Your task to perform on an android device: Turn off the flashlight Image 0: 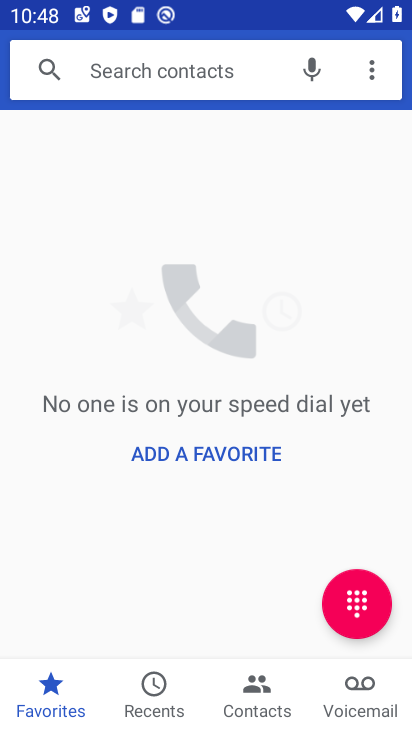
Step 0: press back button
Your task to perform on an android device: Turn off the flashlight Image 1: 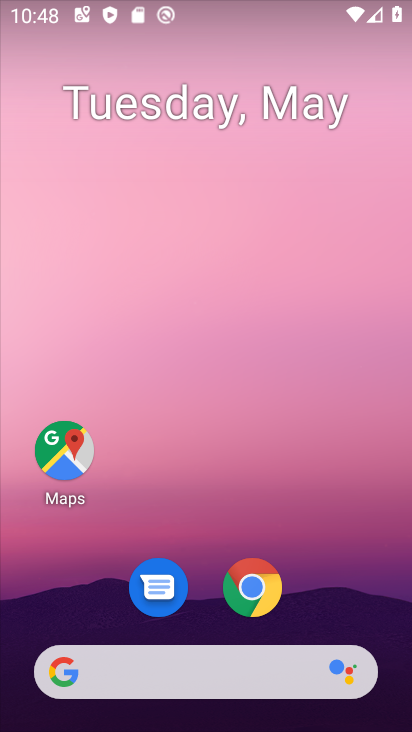
Step 1: drag from (338, 589) to (295, 3)
Your task to perform on an android device: Turn off the flashlight Image 2: 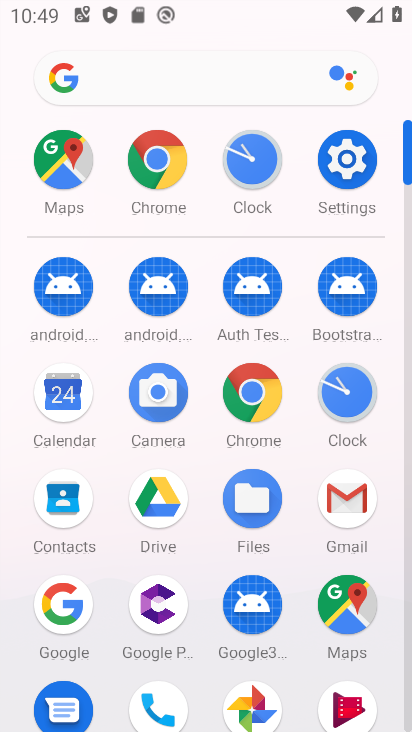
Step 2: drag from (12, 602) to (22, 335)
Your task to perform on an android device: Turn off the flashlight Image 3: 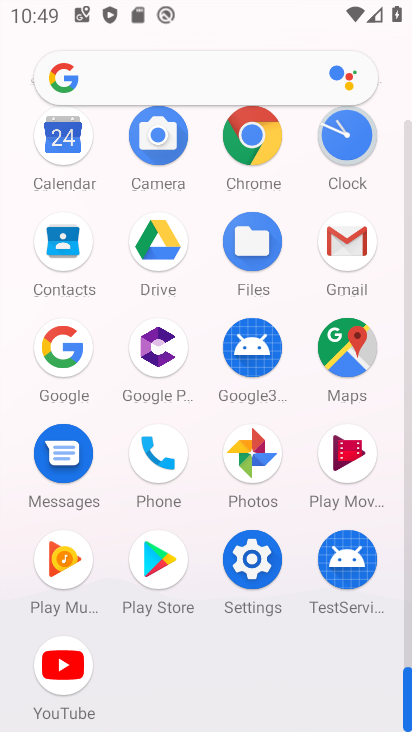
Step 3: click (251, 556)
Your task to perform on an android device: Turn off the flashlight Image 4: 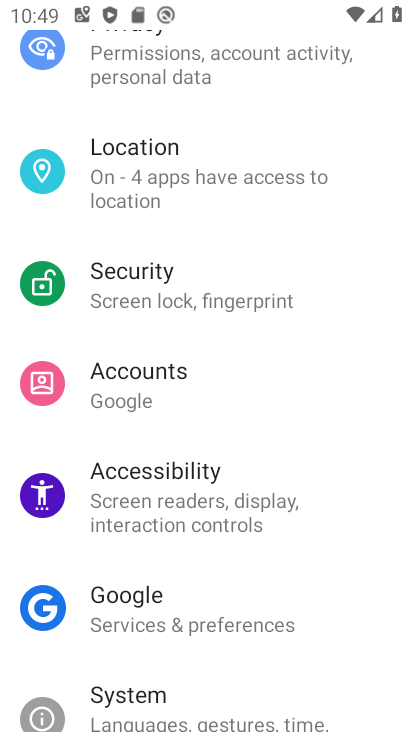
Step 4: drag from (270, 119) to (284, 602)
Your task to perform on an android device: Turn off the flashlight Image 5: 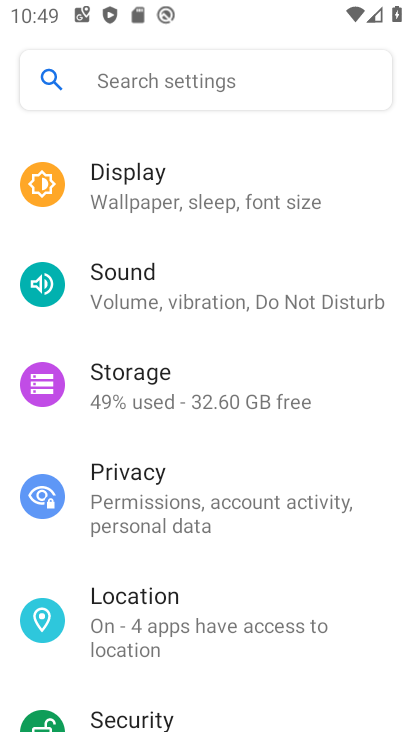
Step 5: drag from (237, 229) to (240, 598)
Your task to perform on an android device: Turn off the flashlight Image 6: 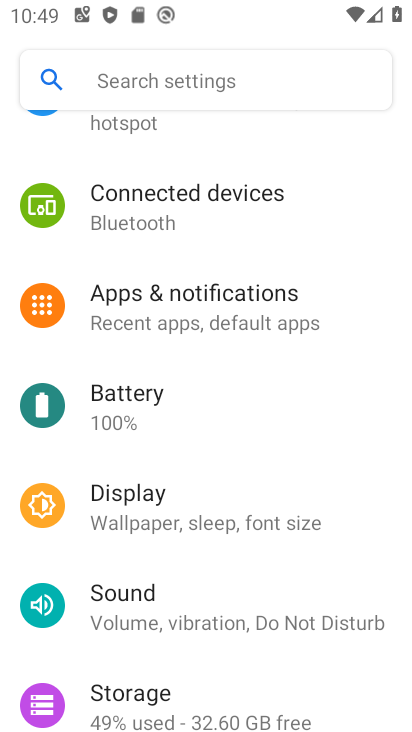
Step 6: drag from (232, 202) to (248, 666)
Your task to perform on an android device: Turn off the flashlight Image 7: 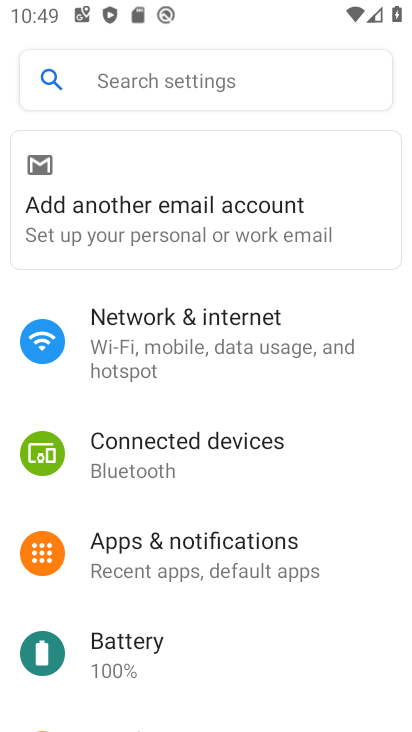
Step 7: click (233, 350)
Your task to perform on an android device: Turn off the flashlight Image 8: 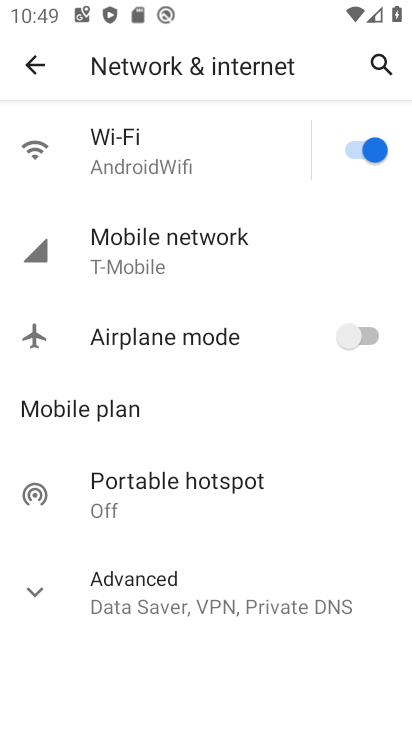
Step 8: click (31, 593)
Your task to perform on an android device: Turn off the flashlight Image 9: 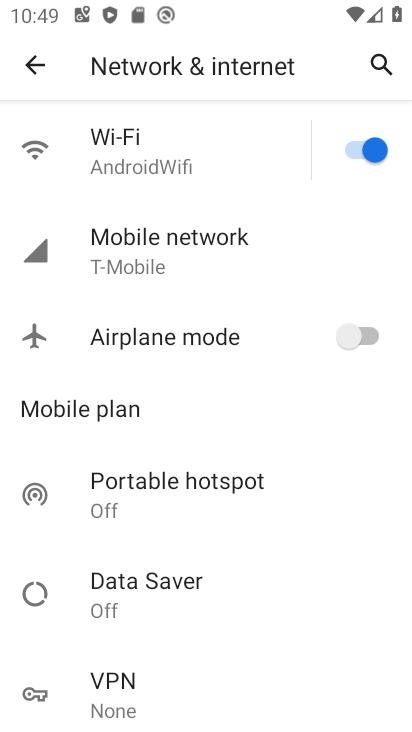
Step 9: task complete